Your task to perform on an android device: Search for sushi restaurants on Maps Image 0: 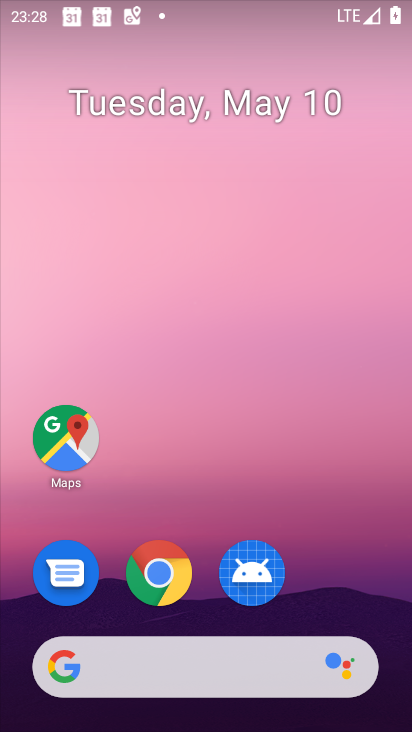
Step 0: click (65, 436)
Your task to perform on an android device: Search for sushi restaurants on Maps Image 1: 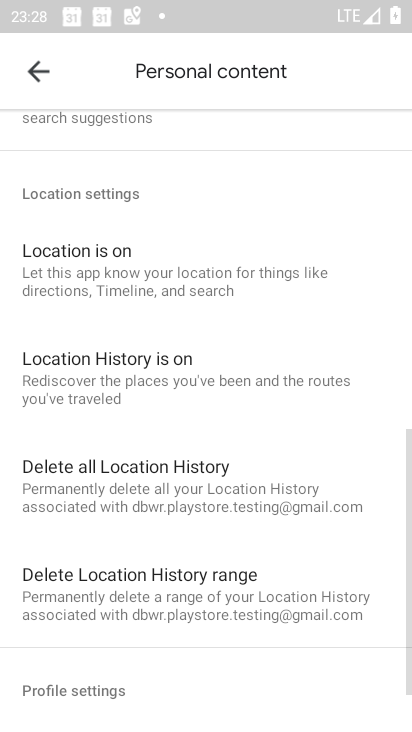
Step 1: click (29, 69)
Your task to perform on an android device: Search for sushi restaurants on Maps Image 2: 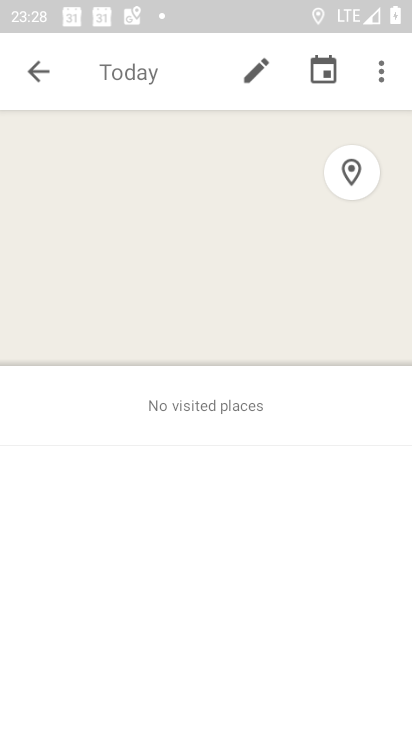
Step 2: click (41, 66)
Your task to perform on an android device: Search for sushi restaurants on Maps Image 3: 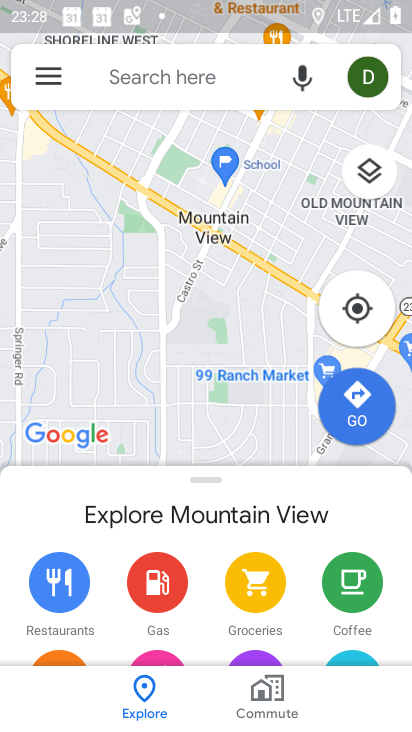
Step 3: click (166, 87)
Your task to perform on an android device: Search for sushi restaurants on Maps Image 4: 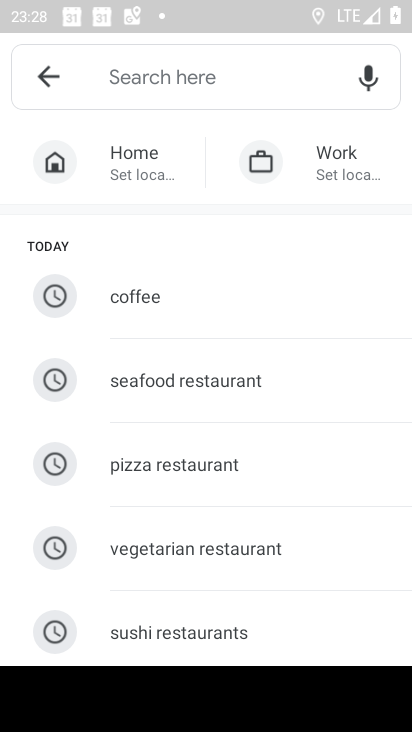
Step 4: click (194, 631)
Your task to perform on an android device: Search for sushi restaurants on Maps Image 5: 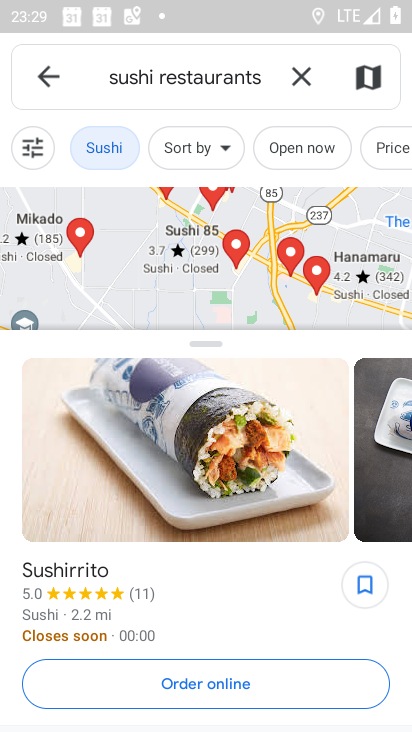
Step 5: task complete